Your task to perform on an android device: turn off improve location accuracy Image 0: 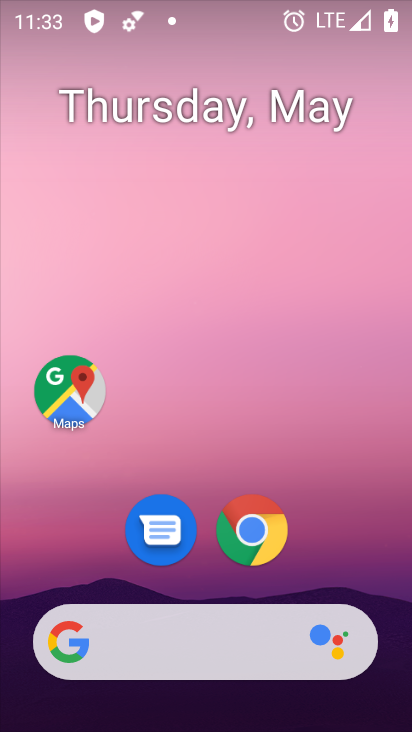
Step 0: drag from (306, 588) to (335, 72)
Your task to perform on an android device: turn off improve location accuracy Image 1: 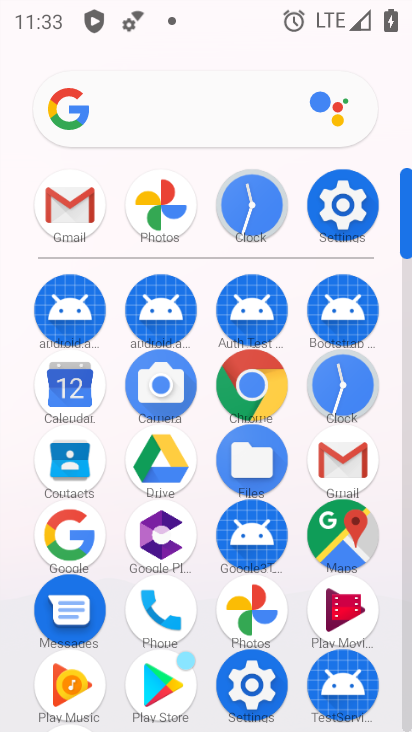
Step 1: click (325, 204)
Your task to perform on an android device: turn off improve location accuracy Image 2: 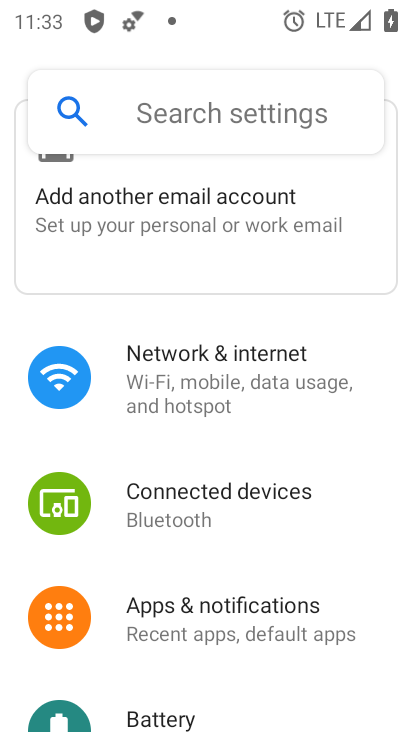
Step 2: drag from (204, 648) to (258, 314)
Your task to perform on an android device: turn off improve location accuracy Image 3: 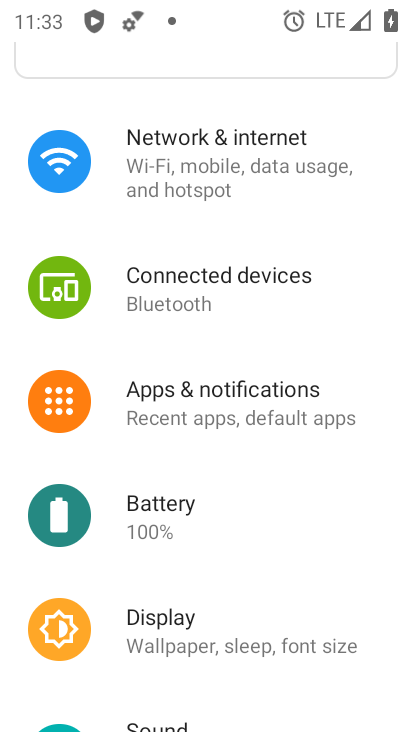
Step 3: drag from (205, 626) to (207, 228)
Your task to perform on an android device: turn off improve location accuracy Image 4: 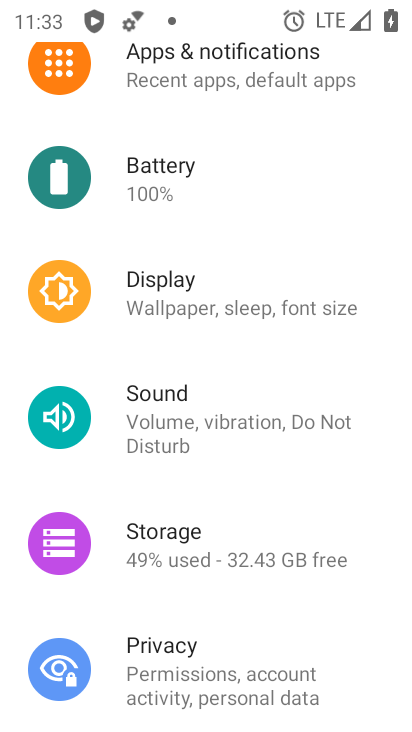
Step 4: drag from (141, 614) to (132, 266)
Your task to perform on an android device: turn off improve location accuracy Image 5: 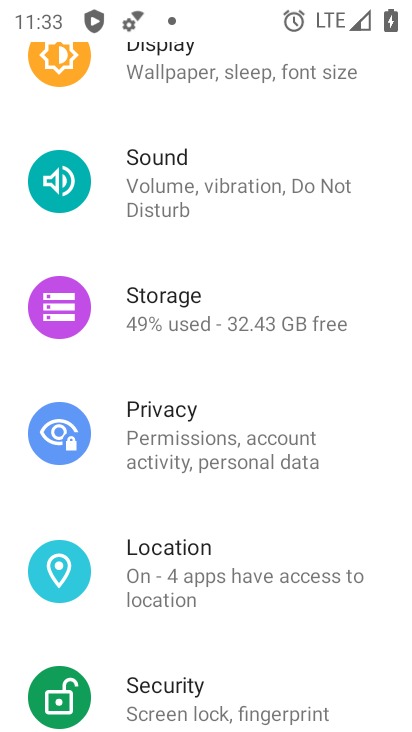
Step 5: click (143, 569)
Your task to perform on an android device: turn off improve location accuracy Image 6: 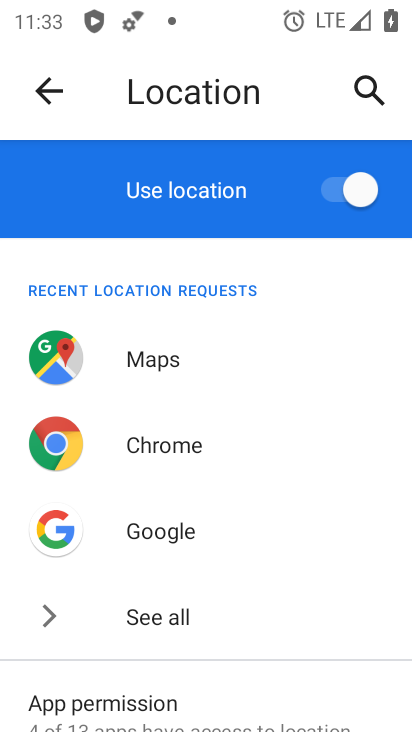
Step 6: drag from (131, 649) to (152, 335)
Your task to perform on an android device: turn off improve location accuracy Image 7: 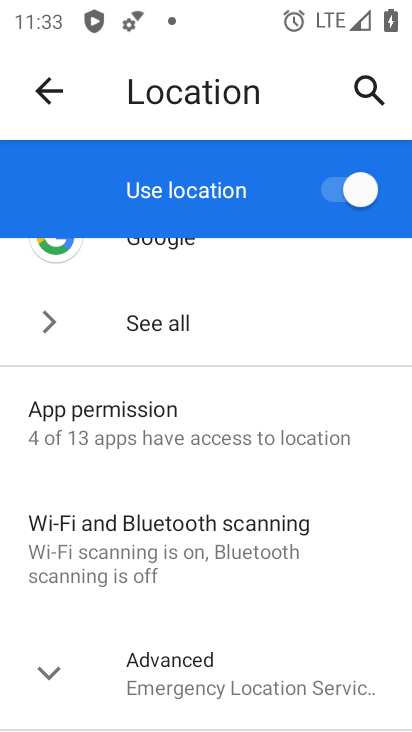
Step 7: click (112, 663)
Your task to perform on an android device: turn off improve location accuracy Image 8: 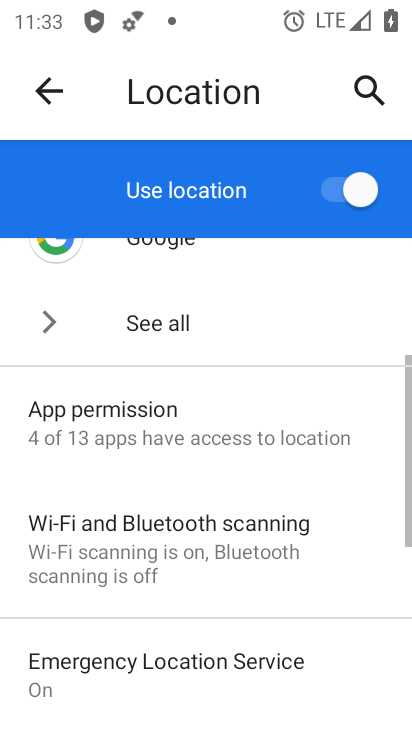
Step 8: drag from (108, 661) to (126, 521)
Your task to perform on an android device: turn off improve location accuracy Image 9: 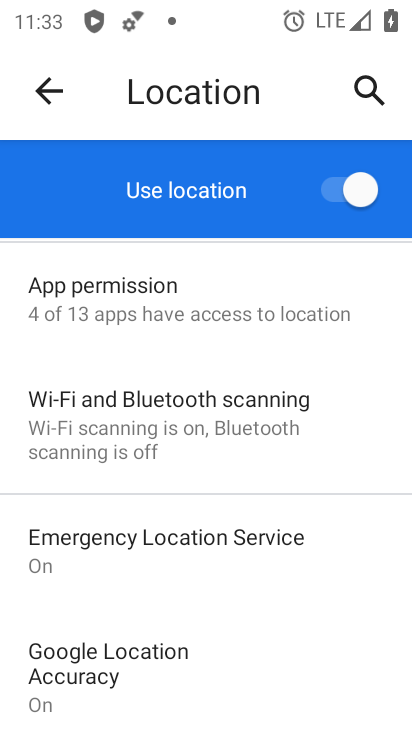
Step 9: click (41, 648)
Your task to perform on an android device: turn off improve location accuracy Image 10: 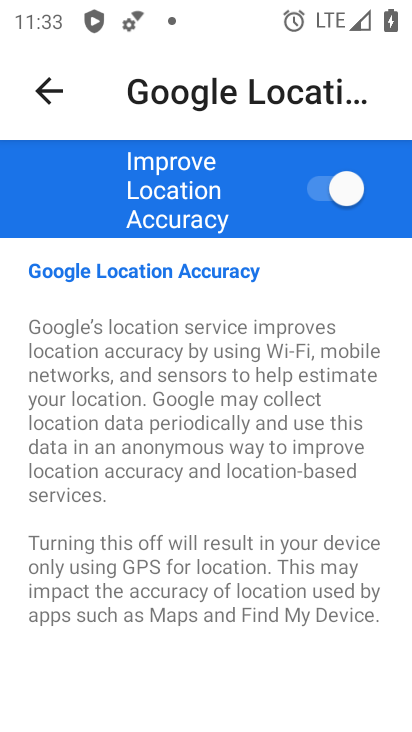
Step 10: click (355, 180)
Your task to perform on an android device: turn off improve location accuracy Image 11: 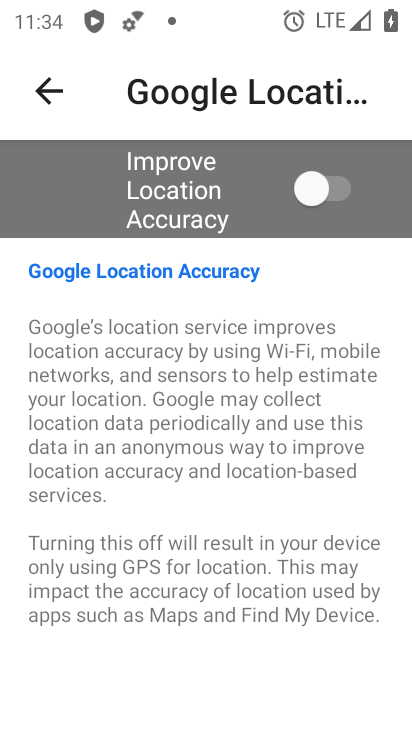
Step 11: task complete